Your task to perform on an android device: Open my contact list Image 0: 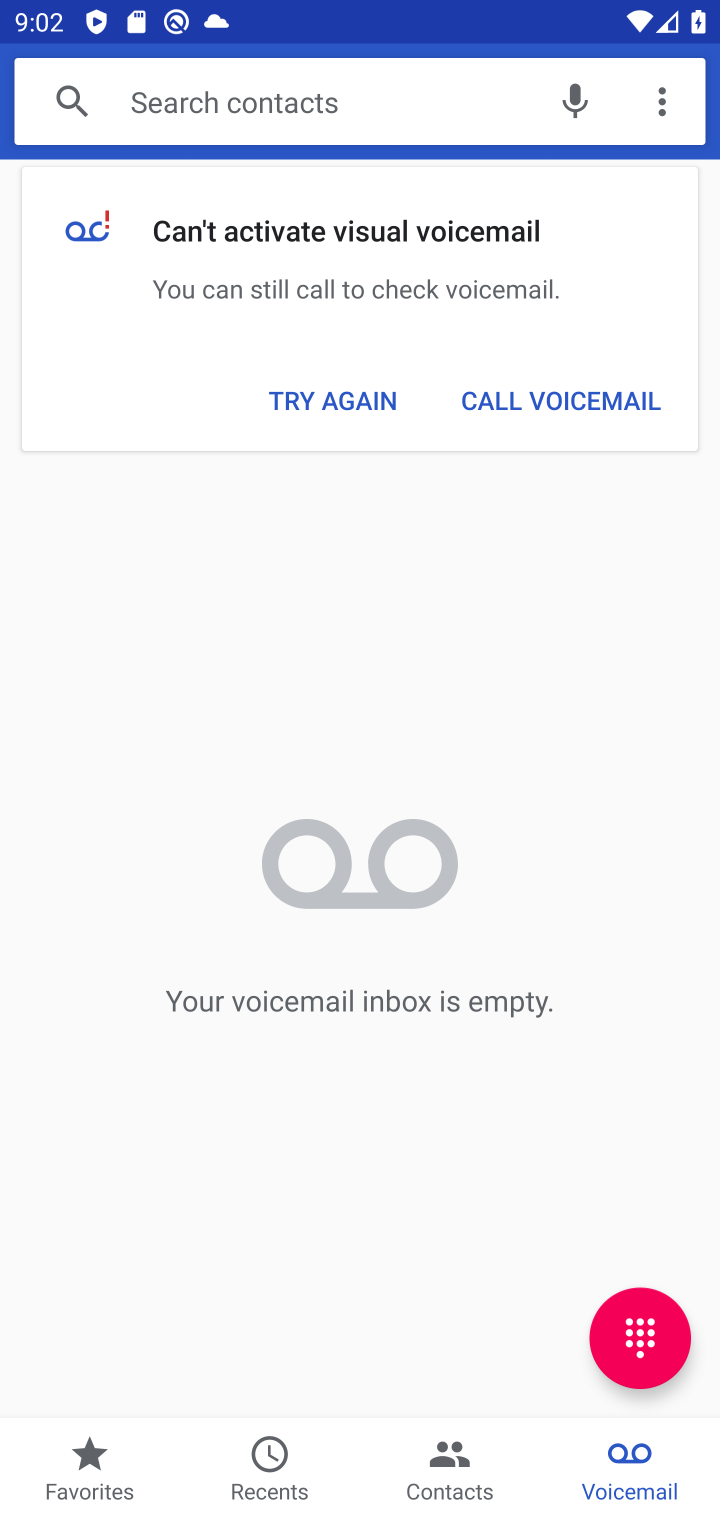
Step 0: click (451, 1460)
Your task to perform on an android device: Open my contact list Image 1: 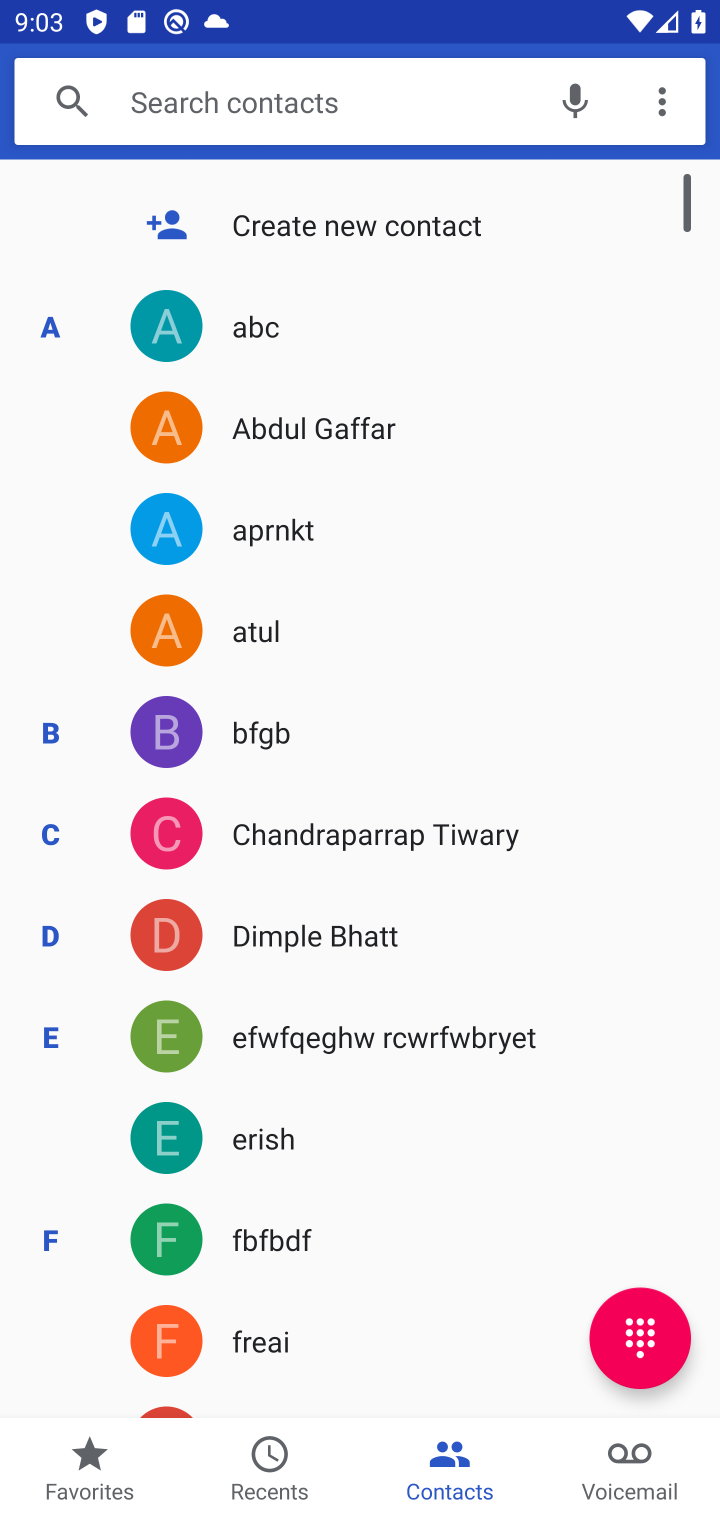
Step 1: task complete